Your task to perform on an android device: turn off data saver in the chrome app Image 0: 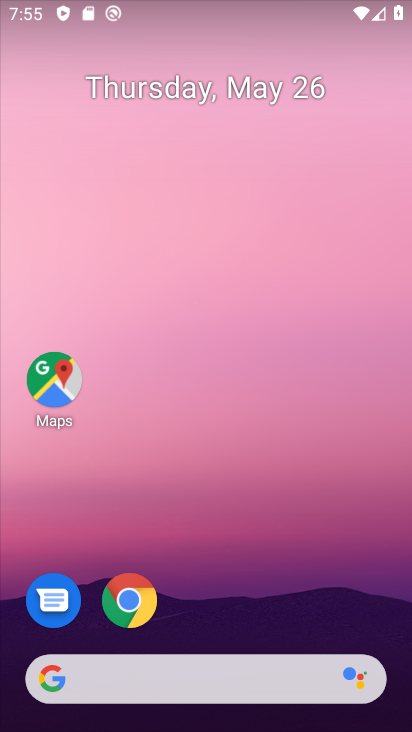
Step 0: click (133, 602)
Your task to perform on an android device: turn off data saver in the chrome app Image 1: 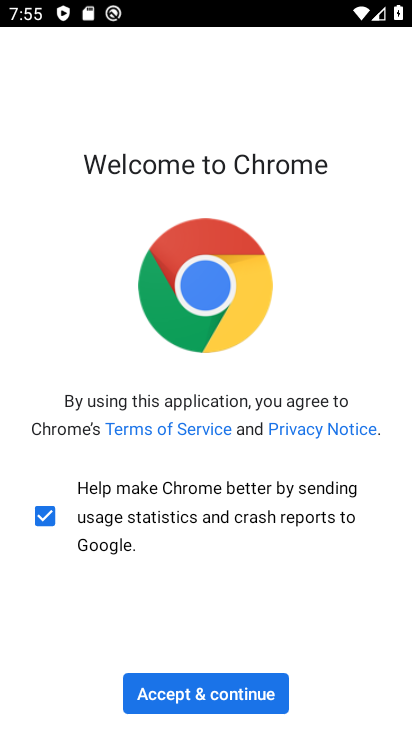
Step 1: click (193, 696)
Your task to perform on an android device: turn off data saver in the chrome app Image 2: 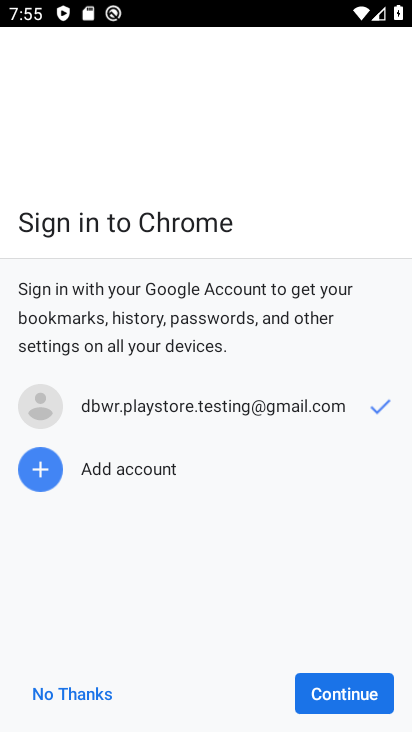
Step 2: click (344, 693)
Your task to perform on an android device: turn off data saver in the chrome app Image 3: 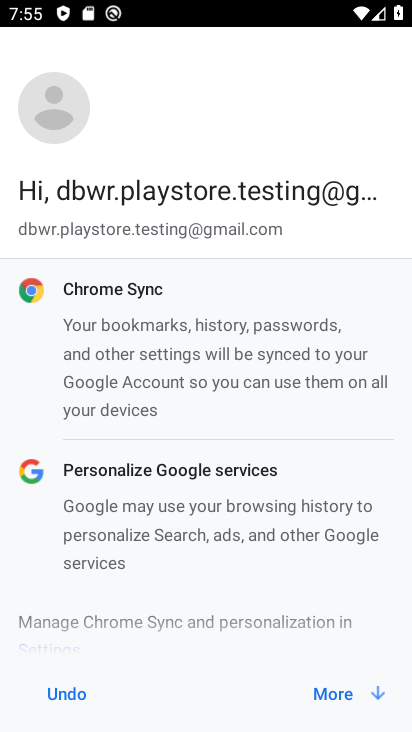
Step 3: click (344, 693)
Your task to perform on an android device: turn off data saver in the chrome app Image 4: 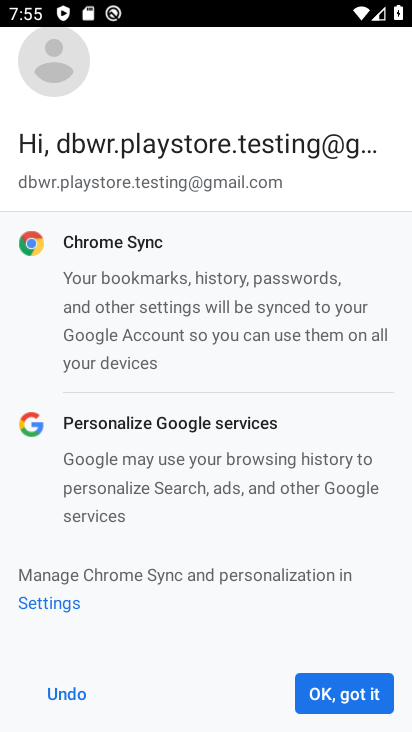
Step 4: click (344, 693)
Your task to perform on an android device: turn off data saver in the chrome app Image 5: 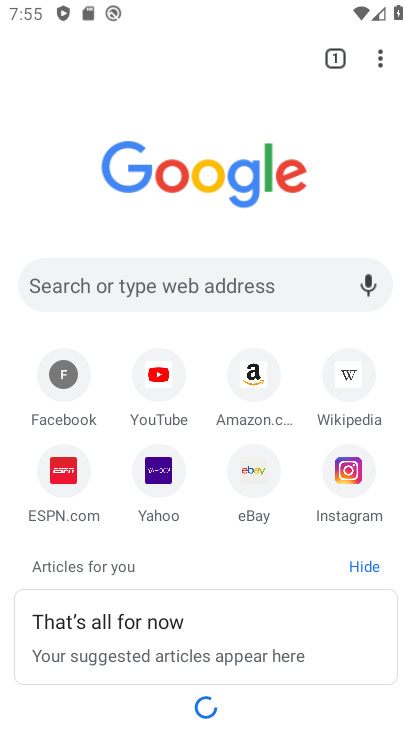
Step 5: click (391, 49)
Your task to perform on an android device: turn off data saver in the chrome app Image 6: 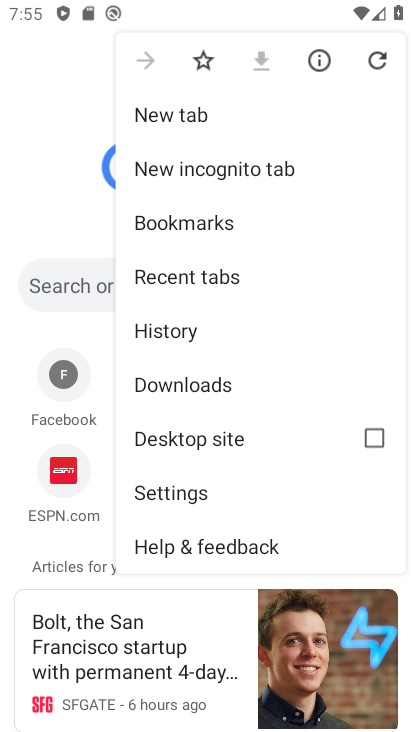
Step 6: click (179, 474)
Your task to perform on an android device: turn off data saver in the chrome app Image 7: 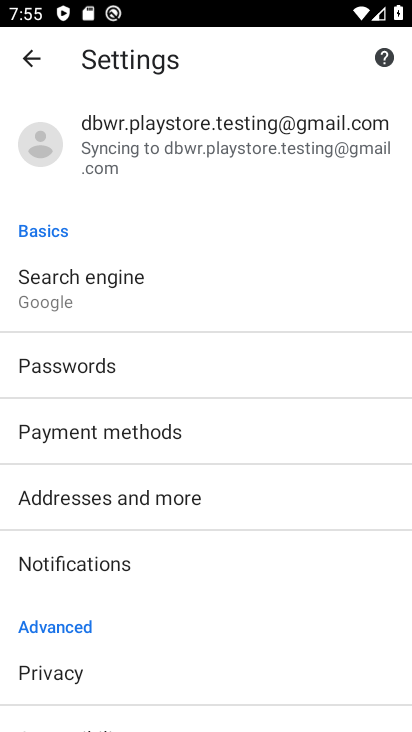
Step 7: drag from (125, 635) to (167, 126)
Your task to perform on an android device: turn off data saver in the chrome app Image 8: 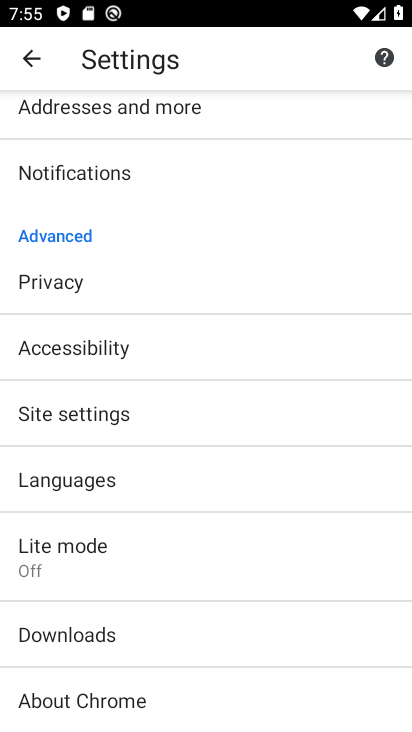
Step 8: click (111, 578)
Your task to perform on an android device: turn off data saver in the chrome app Image 9: 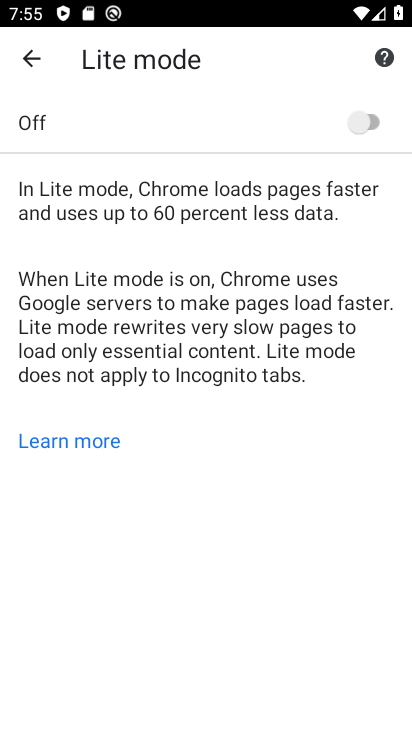
Step 9: task complete